Your task to perform on an android device: turn off airplane mode Image 0: 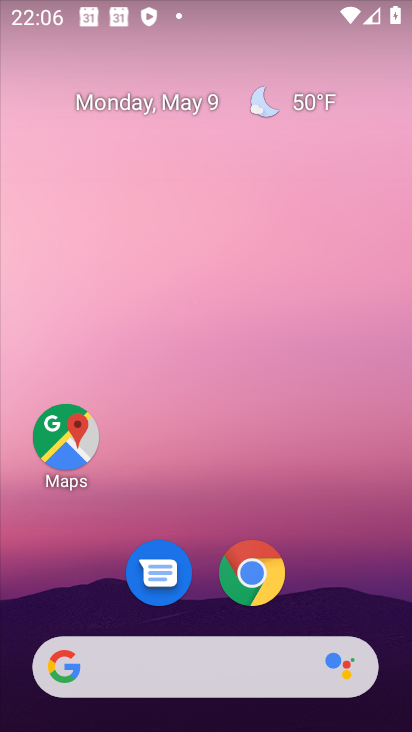
Step 0: drag from (325, 4) to (349, 538)
Your task to perform on an android device: turn off airplane mode Image 1: 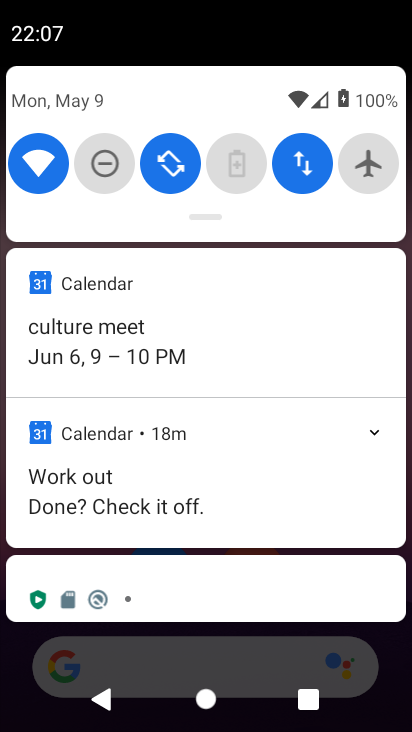
Step 1: task complete